Your task to perform on an android device: change the clock display to analog Image 0: 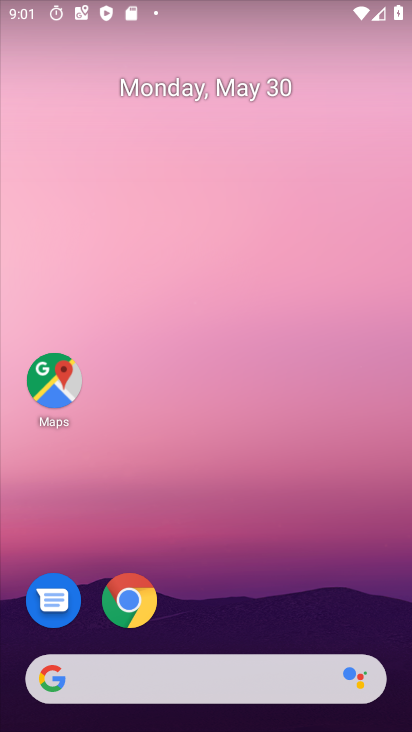
Step 0: drag from (300, 611) to (274, 28)
Your task to perform on an android device: change the clock display to analog Image 1: 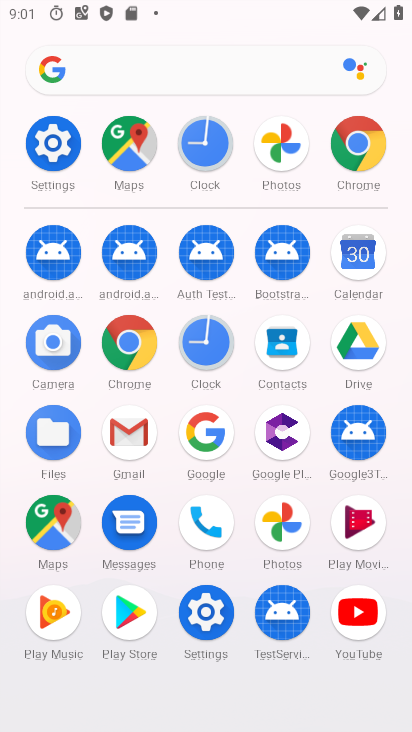
Step 1: drag from (9, 582) to (17, 268)
Your task to perform on an android device: change the clock display to analog Image 2: 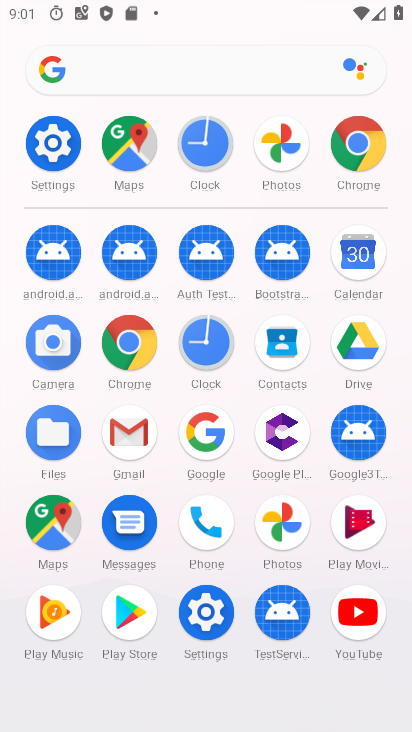
Step 2: click (204, 138)
Your task to perform on an android device: change the clock display to analog Image 3: 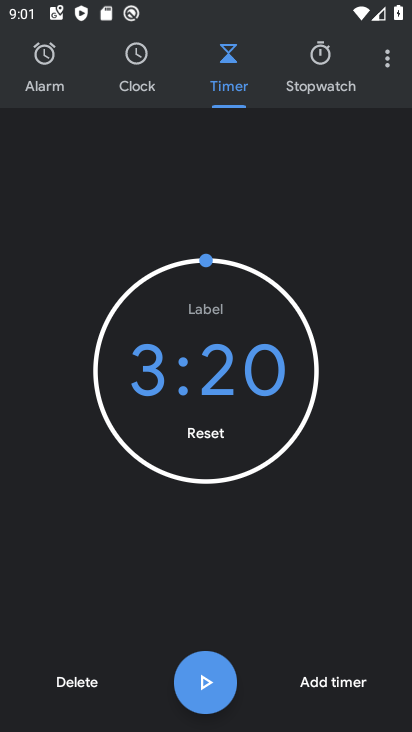
Step 3: drag from (385, 62) to (312, 101)
Your task to perform on an android device: change the clock display to analog Image 4: 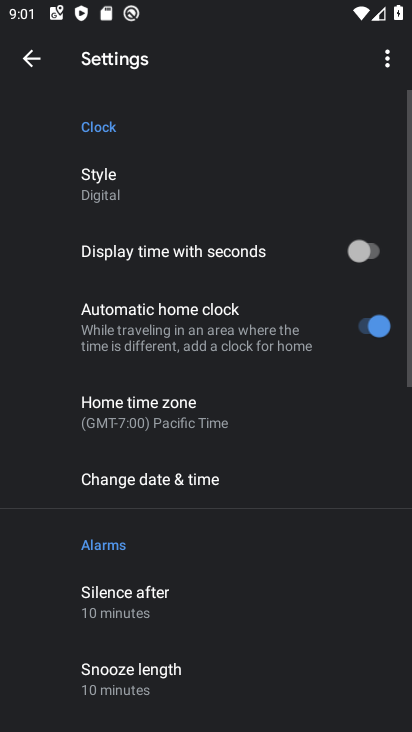
Step 4: click (135, 186)
Your task to perform on an android device: change the clock display to analog Image 5: 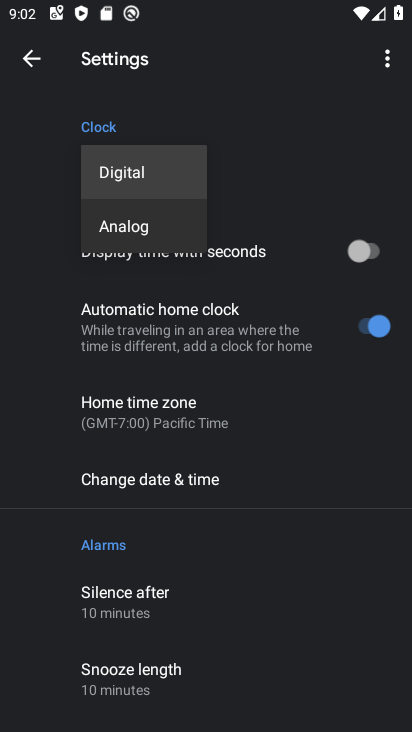
Step 5: click (135, 209)
Your task to perform on an android device: change the clock display to analog Image 6: 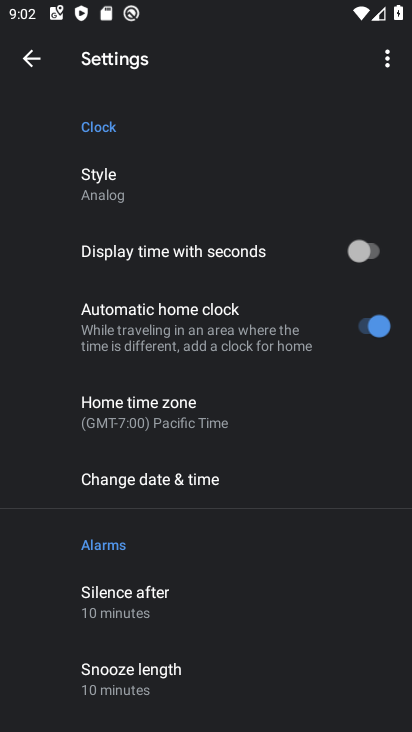
Step 6: task complete